Your task to perform on an android device: turn notification dots off Image 0: 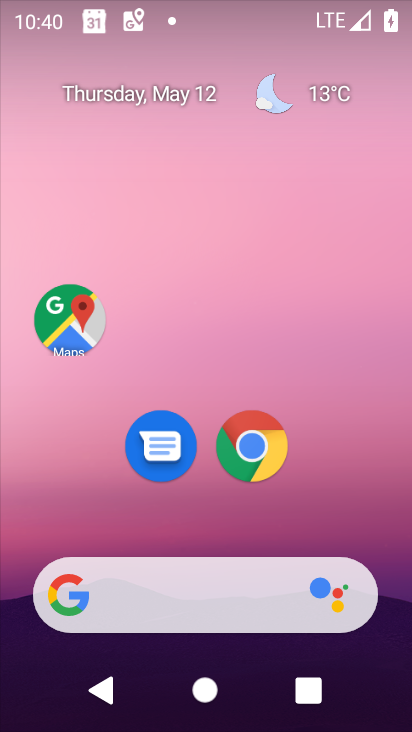
Step 0: drag from (243, 597) to (305, 0)
Your task to perform on an android device: turn notification dots off Image 1: 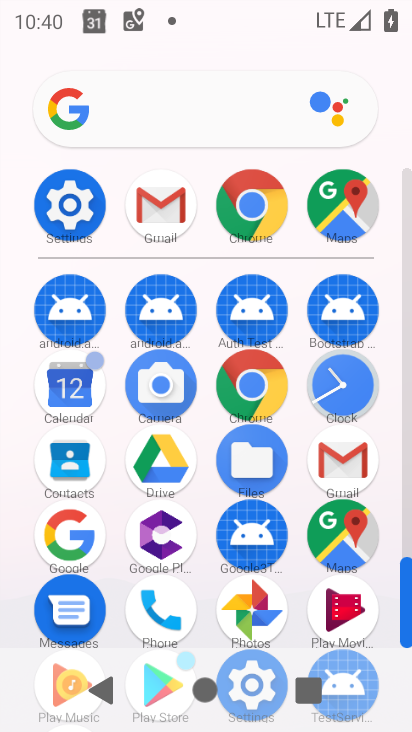
Step 1: click (75, 198)
Your task to perform on an android device: turn notification dots off Image 2: 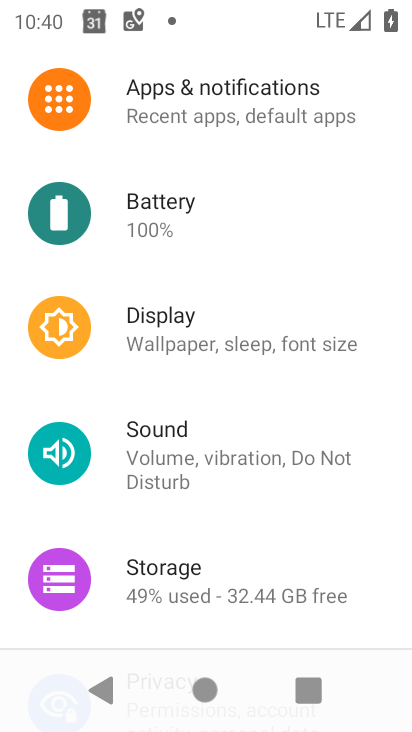
Step 2: click (215, 109)
Your task to perform on an android device: turn notification dots off Image 3: 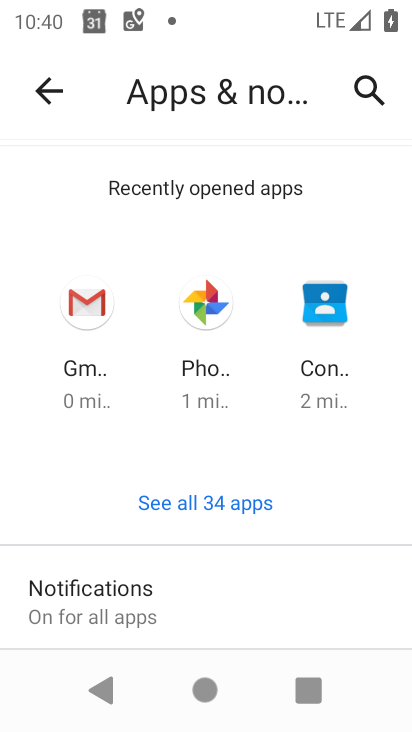
Step 3: drag from (275, 612) to (321, 101)
Your task to perform on an android device: turn notification dots off Image 4: 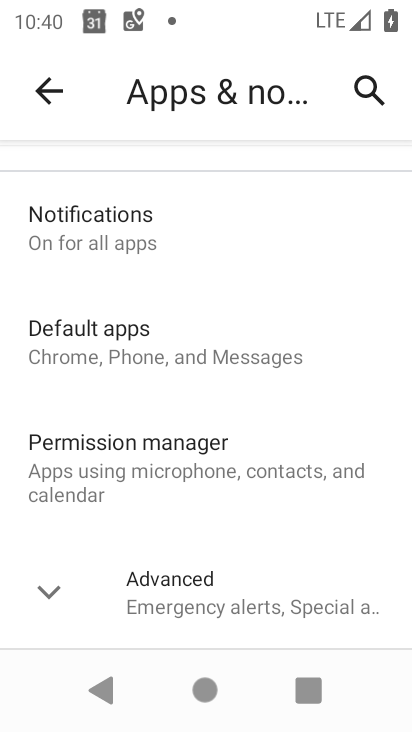
Step 4: click (194, 214)
Your task to perform on an android device: turn notification dots off Image 5: 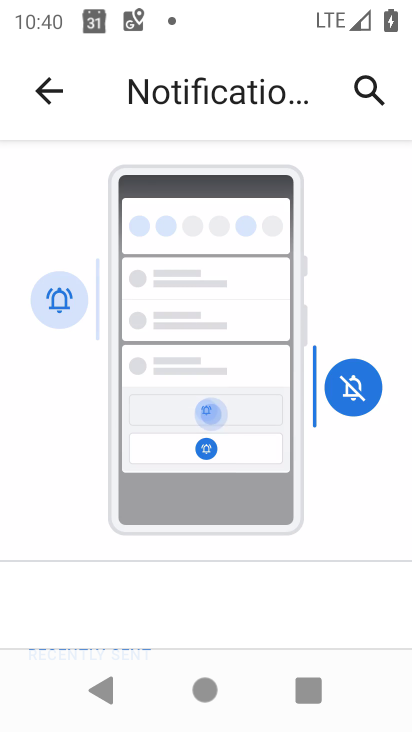
Step 5: drag from (278, 621) to (336, 131)
Your task to perform on an android device: turn notification dots off Image 6: 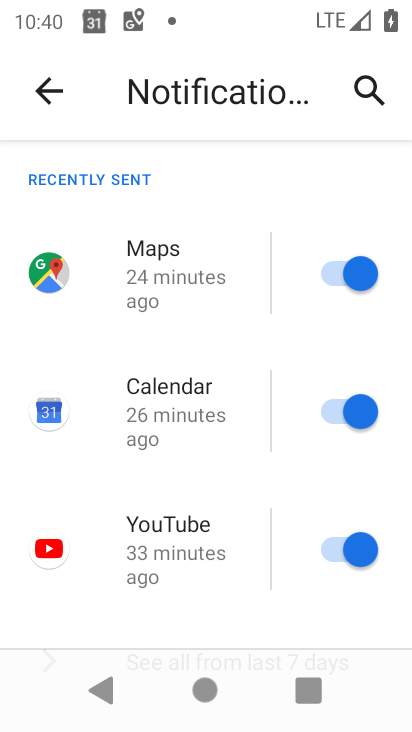
Step 6: drag from (278, 624) to (331, 179)
Your task to perform on an android device: turn notification dots off Image 7: 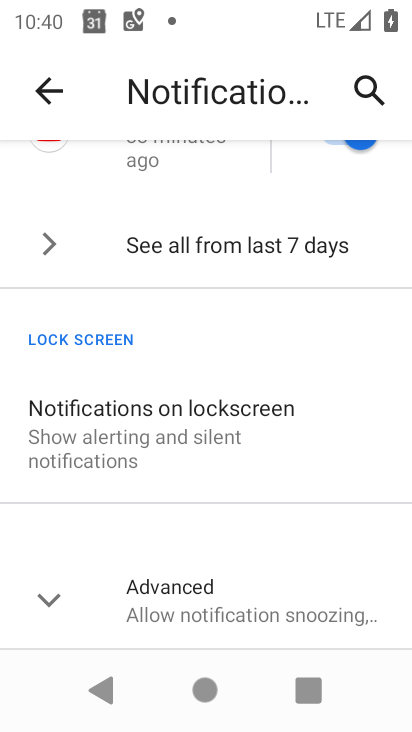
Step 7: click (248, 607)
Your task to perform on an android device: turn notification dots off Image 8: 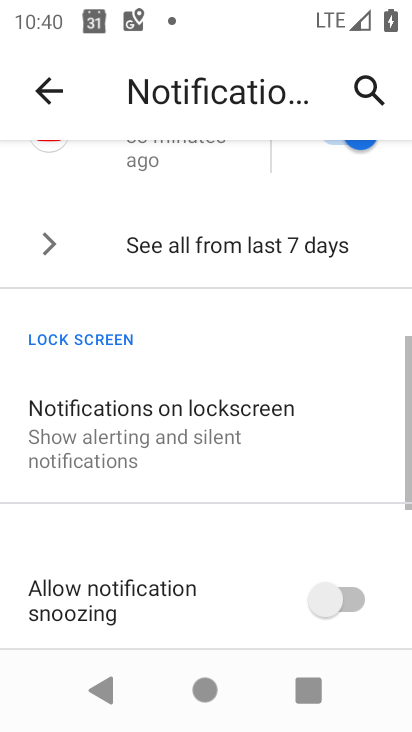
Step 8: drag from (248, 607) to (297, 153)
Your task to perform on an android device: turn notification dots off Image 9: 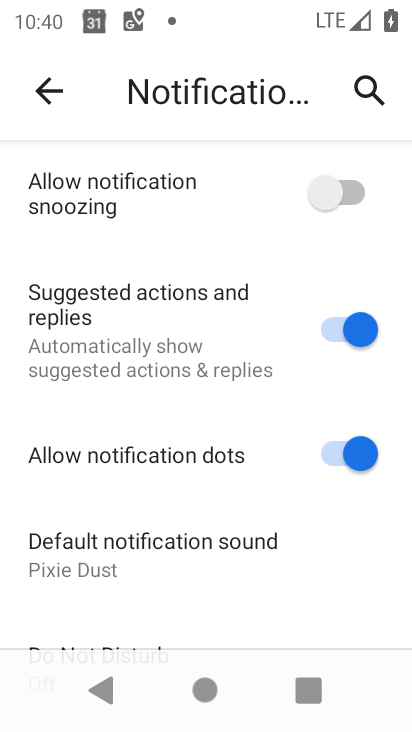
Step 9: click (343, 447)
Your task to perform on an android device: turn notification dots off Image 10: 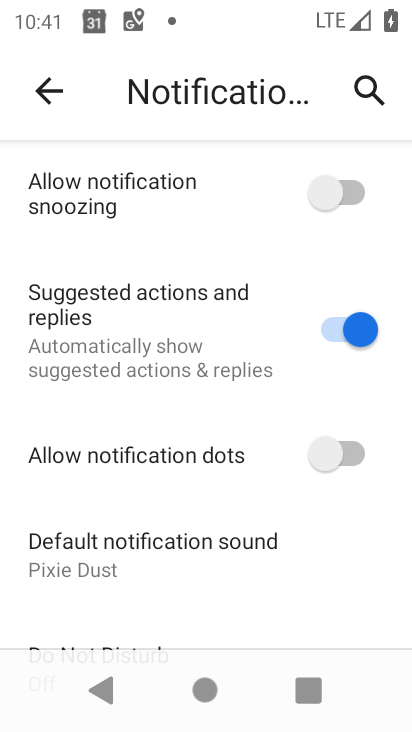
Step 10: task complete